Your task to perform on an android device: turn notification dots off Image 0: 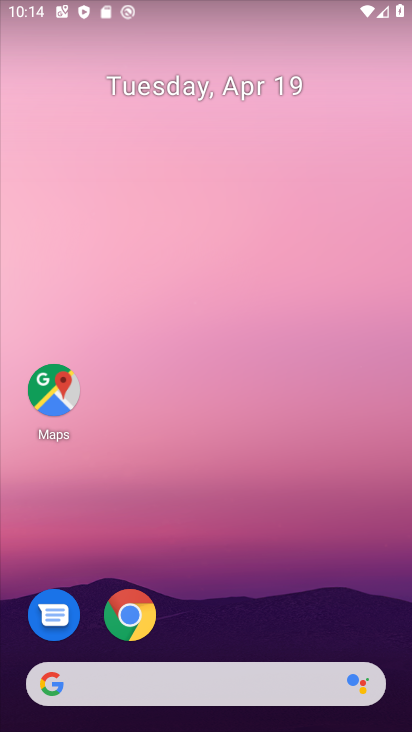
Step 0: drag from (209, 272) to (221, 146)
Your task to perform on an android device: turn notification dots off Image 1: 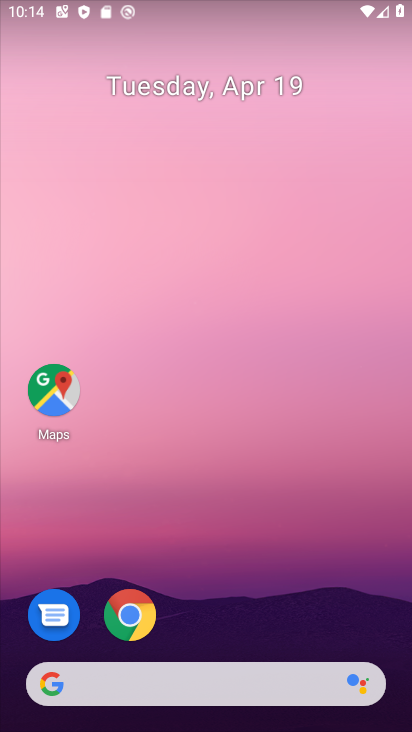
Step 1: drag from (211, 394) to (241, 39)
Your task to perform on an android device: turn notification dots off Image 2: 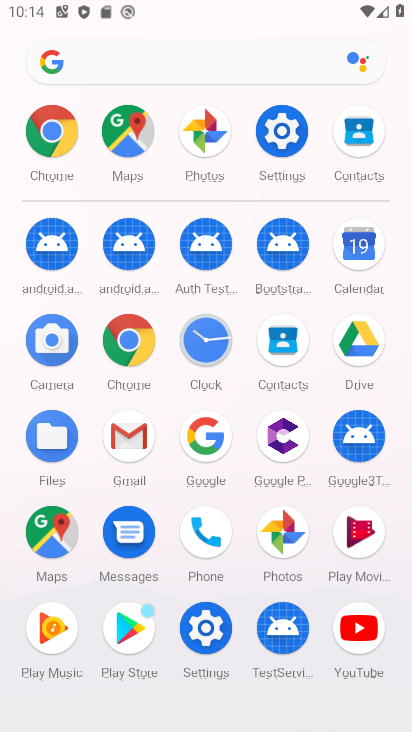
Step 2: click (193, 615)
Your task to perform on an android device: turn notification dots off Image 3: 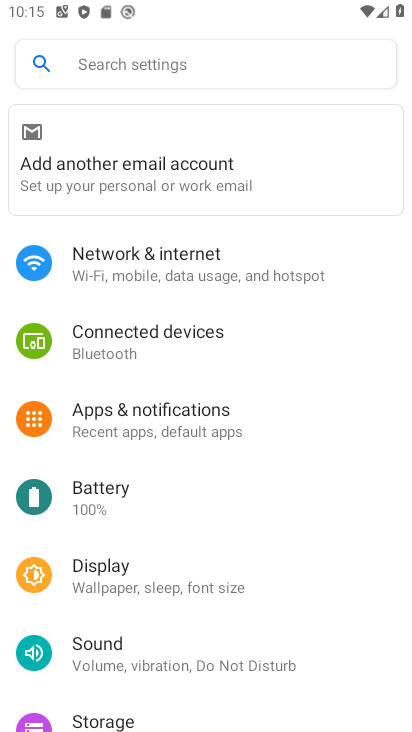
Step 3: drag from (189, 586) to (235, 242)
Your task to perform on an android device: turn notification dots off Image 4: 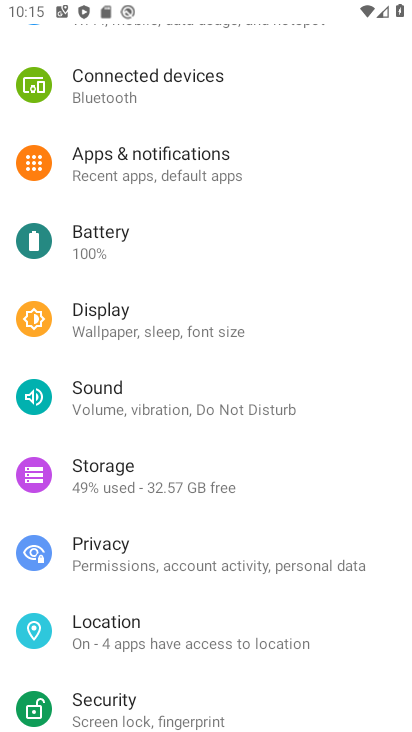
Step 4: click (186, 169)
Your task to perform on an android device: turn notification dots off Image 5: 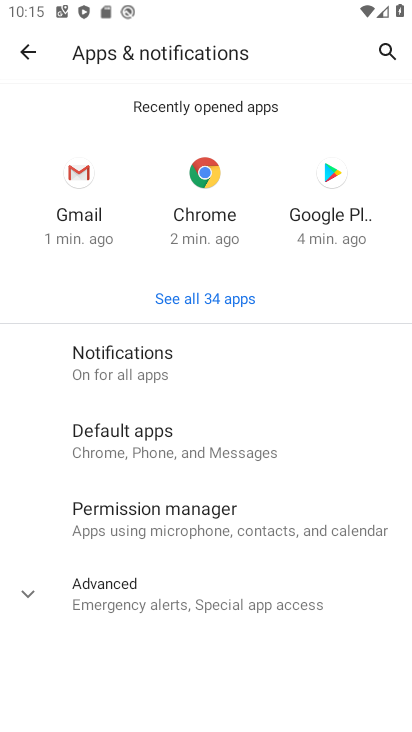
Step 5: click (190, 379)
Your task to perform on an android device: turn notification dots off Image 6: 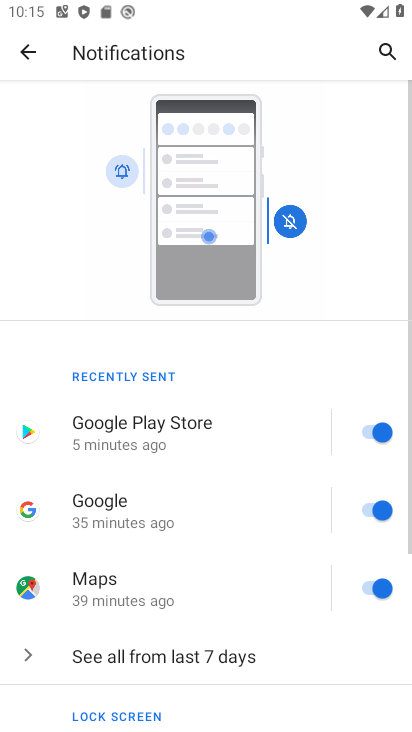
Step 6: drag from (248, 559) to (268, 119)
Your task to perform on an android device: turn notification dots off Image 7: 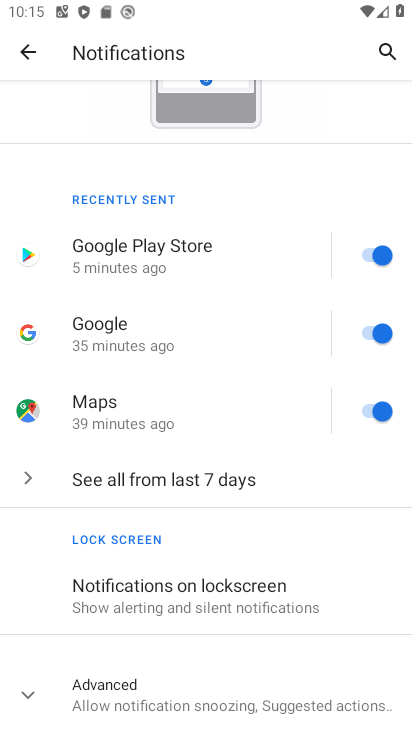
Step 7: drag from (187, 670) to (265, 274)
Your task to perform on an android device: turn notification dots off Image 8: 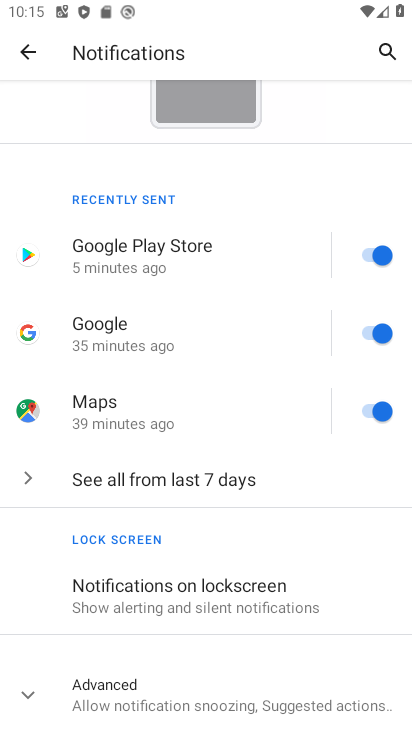
Step 8: click (156, 699)
Your task to perform on an android device: turn notification dots off Image 9: 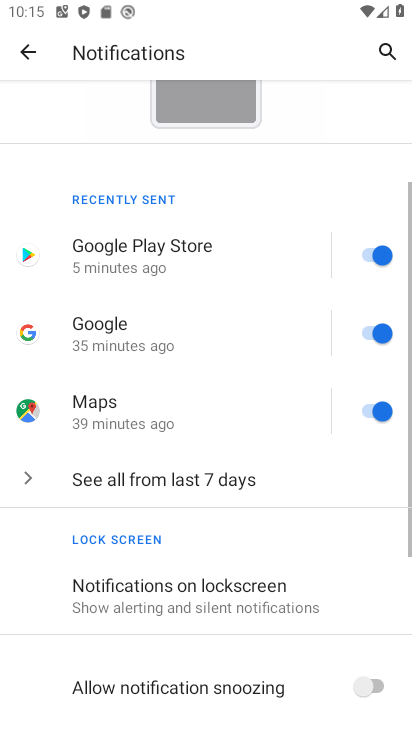
Step 9: drag from (173, 643) to (301, 166)
Your task to perform on an android device: turn notification dots off Image 10: 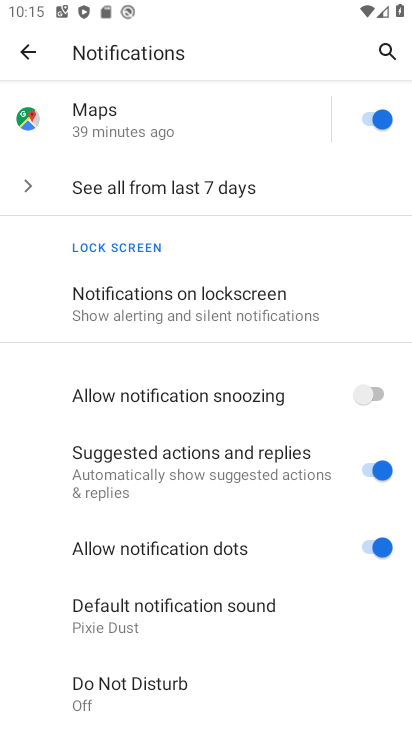
Step 10: click (366, 543)
Your task to perform on an android device: turn notification dots off Image 11: 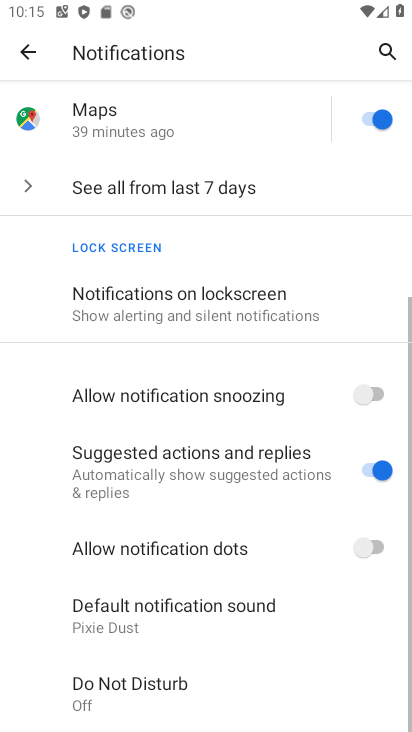
Step 11: task complete